Your task to perform on an android device: Add logitech g pro to the cart on ebay, then select checkout. Image 0: 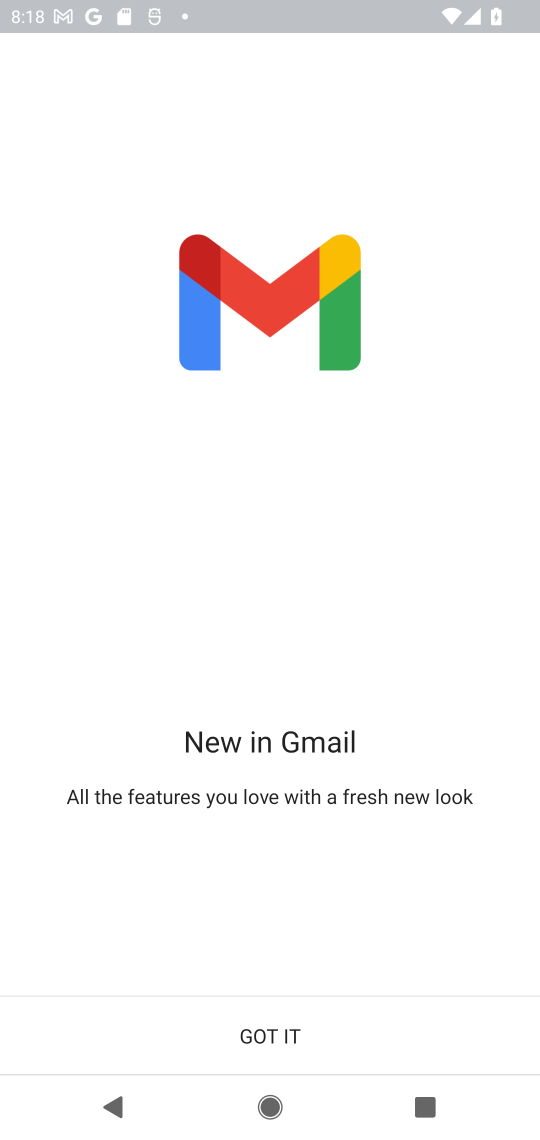
Step 0: press home button
Your task to perform on an android device: Add logitech g pro to the cart on ebay, then select checkout. Image 1: 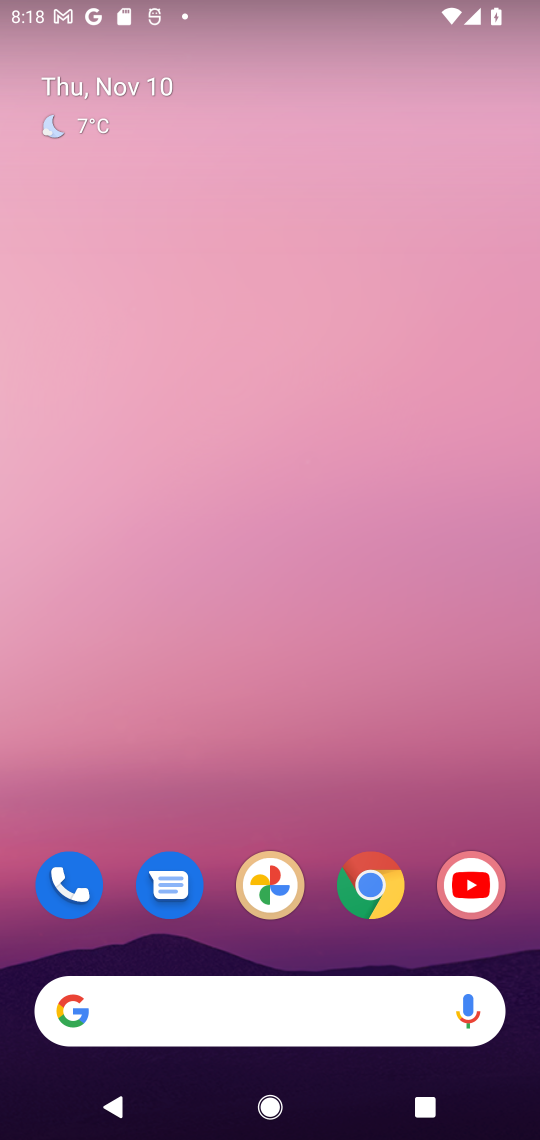
Step 1: click (365, 873)
Your task to perform on an android device: Add logitech g pro to the cart on ebay, then select checkout. Image 2: 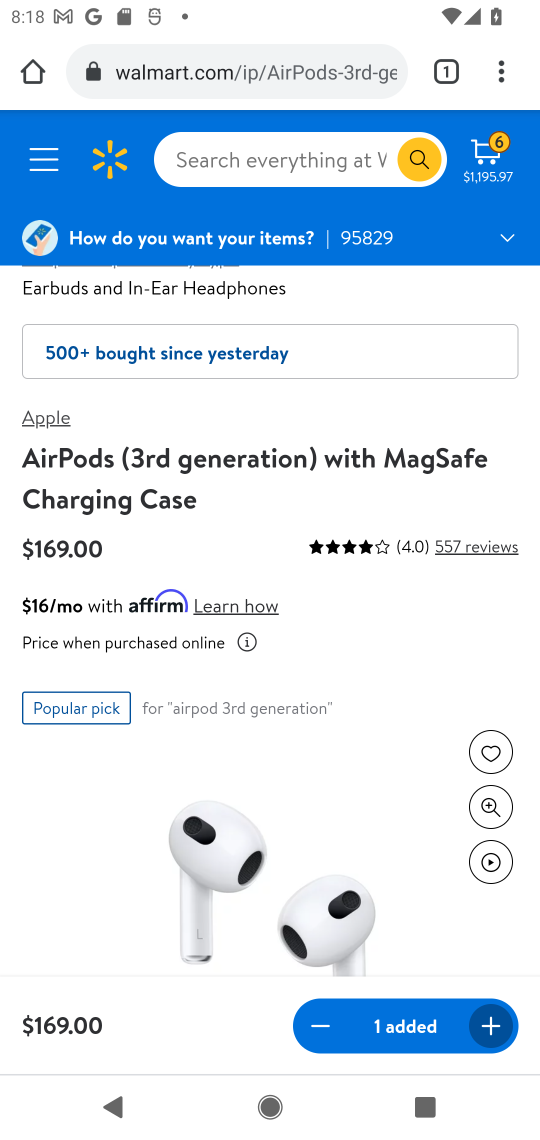
Step 2: click (297, 80)
Your task to perform on an android device: Add logitech g pro to the cart on ebay, then select checkout. Image 3: 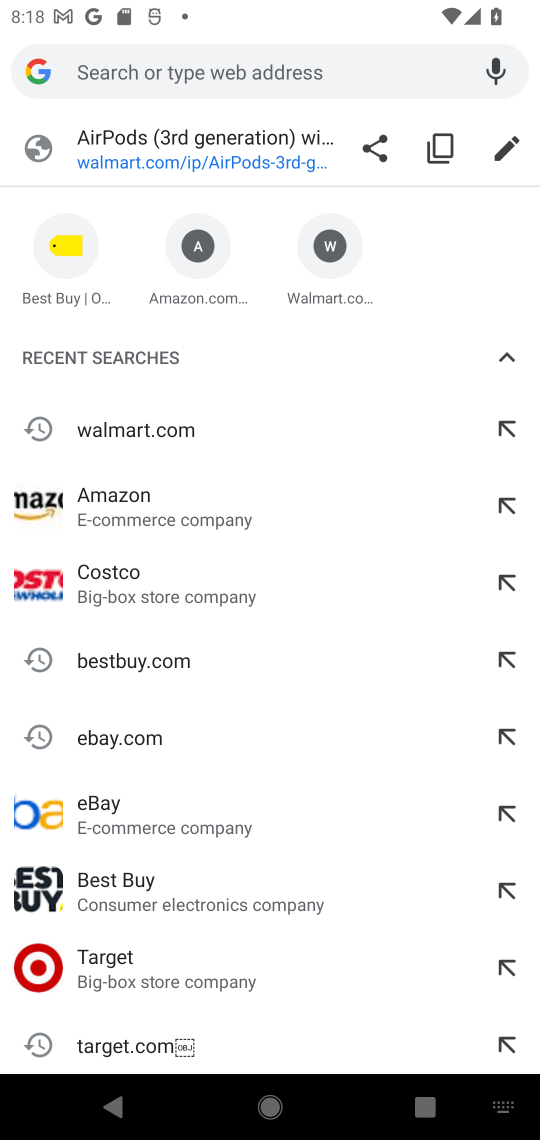
Step 3: click (148, 742)
Your task to perform on an android device: Add logitech g pro to the cart on ebay, then select checkout. Image 4: 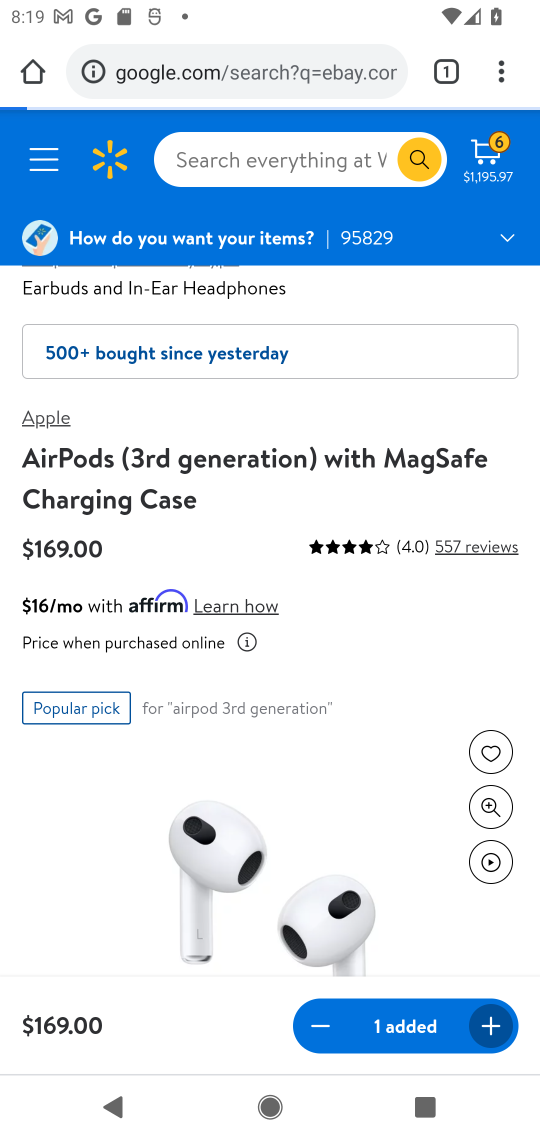
Step 4: click (312, 62)
Your task to perform on an android device: Add logitech g pro to the cart on ebay, then select checkout. Image 5: 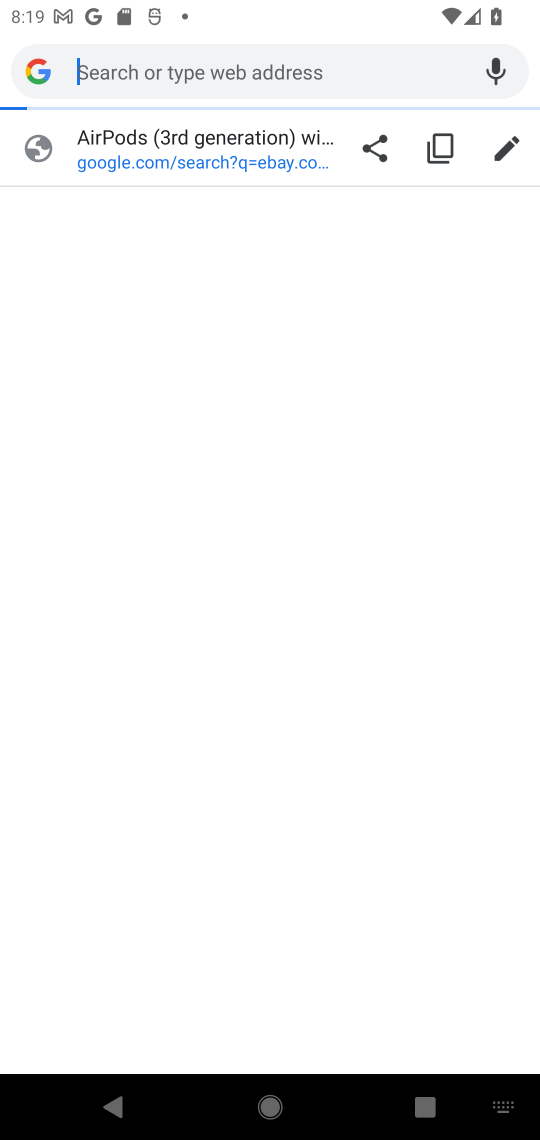
Step 5: type "ebay"
Your task to perform on an android device: Add logitech g pro to the cart on ebay, then select checkout. Image 6: 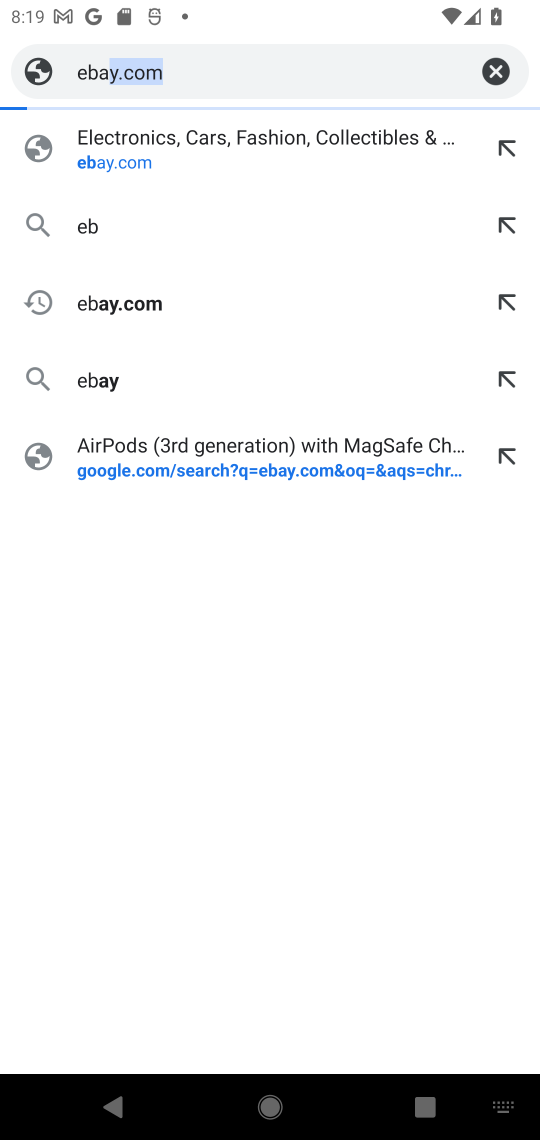
Step 6: press enter
Your task to perform on an android device: Add logitech g pro to the cart on ebay, then select checkout. Image 7: 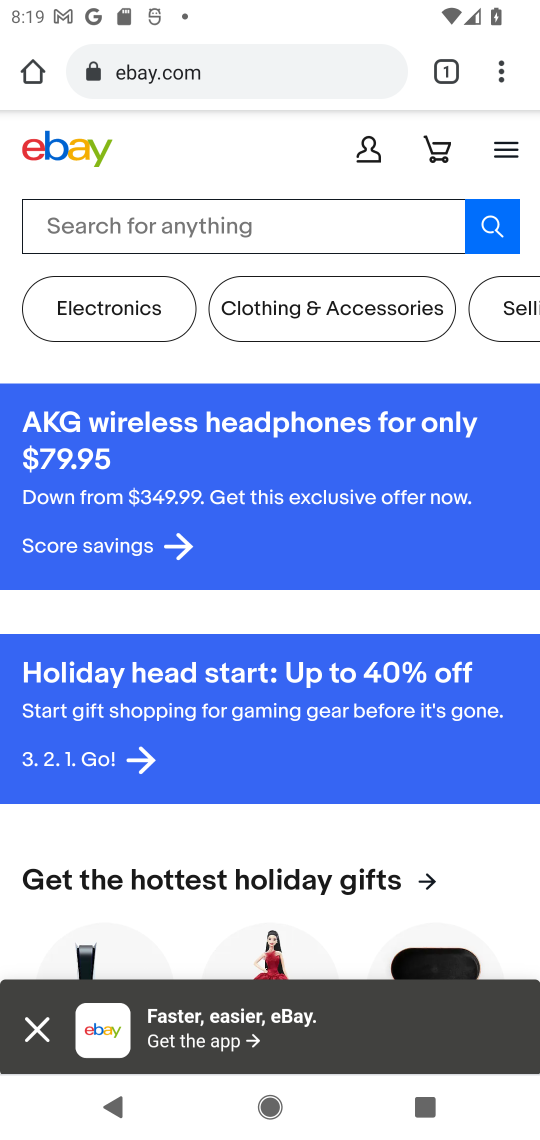
Step 7: click (178, 225)
Your task to perform on an android device: Add logitech g pro to the cart on ebay, then select checkout. Image 8: 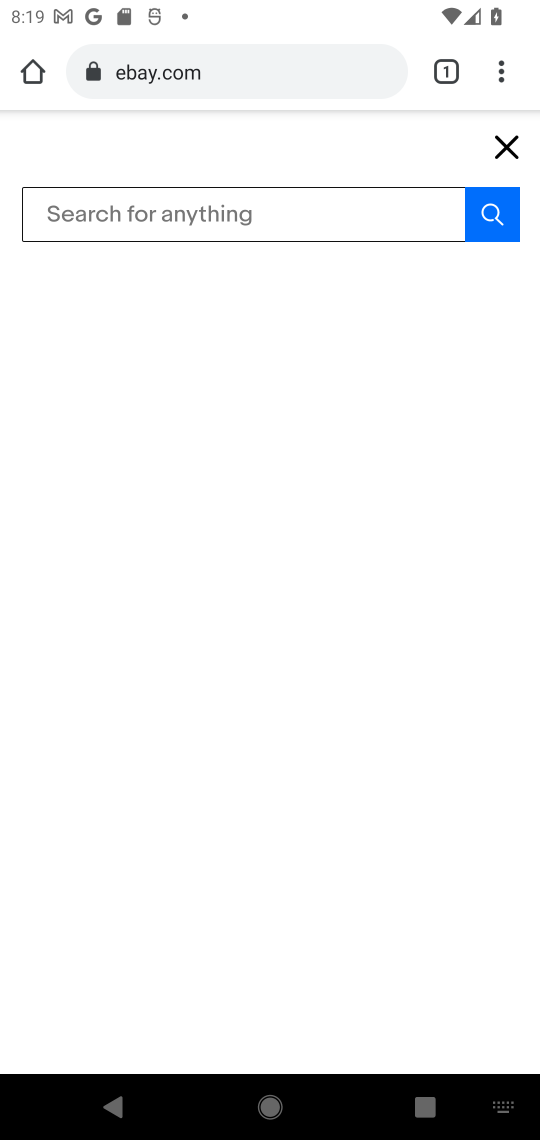
Step 8: type "logitech g pro"
Your task to perform on an android device: Add logitech g pro to the cart on ebay, then select checkout. Image 9: 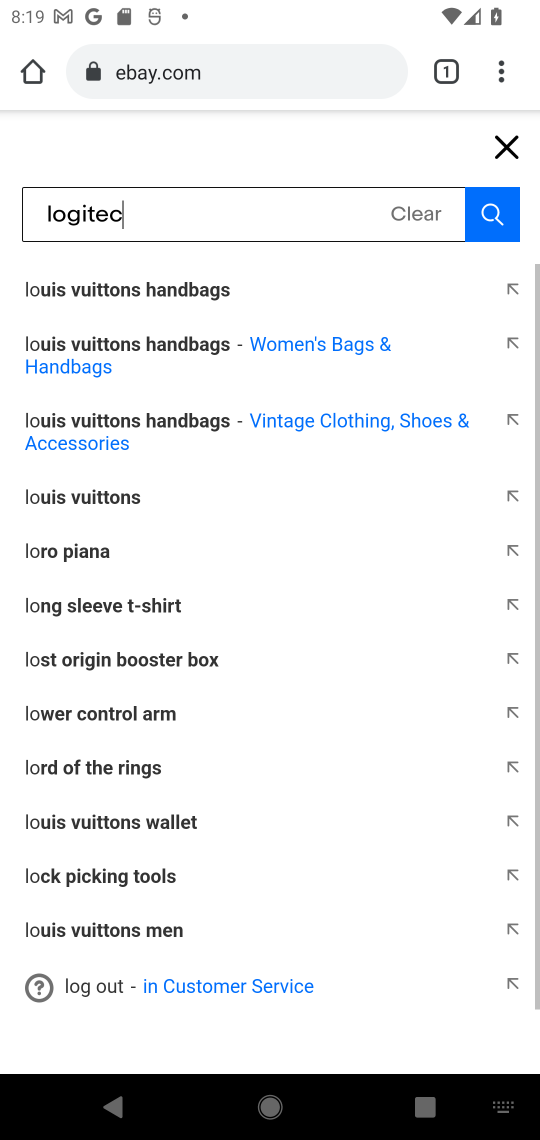
Step 9: press enter
Your task to perform on an android device: Add logitech g pro to the cart on ebay, then select checkout. Image 10: 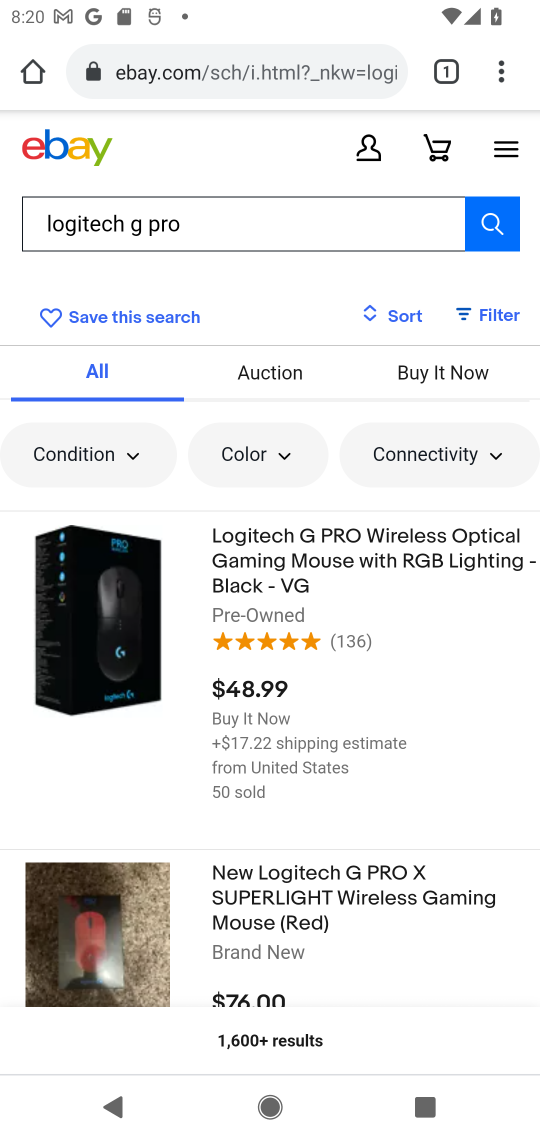
Step 10: click (69, 628)
Your task to perform on an android device: Add logitech g pro to the cart on ebay, then select checkout. Image 11: 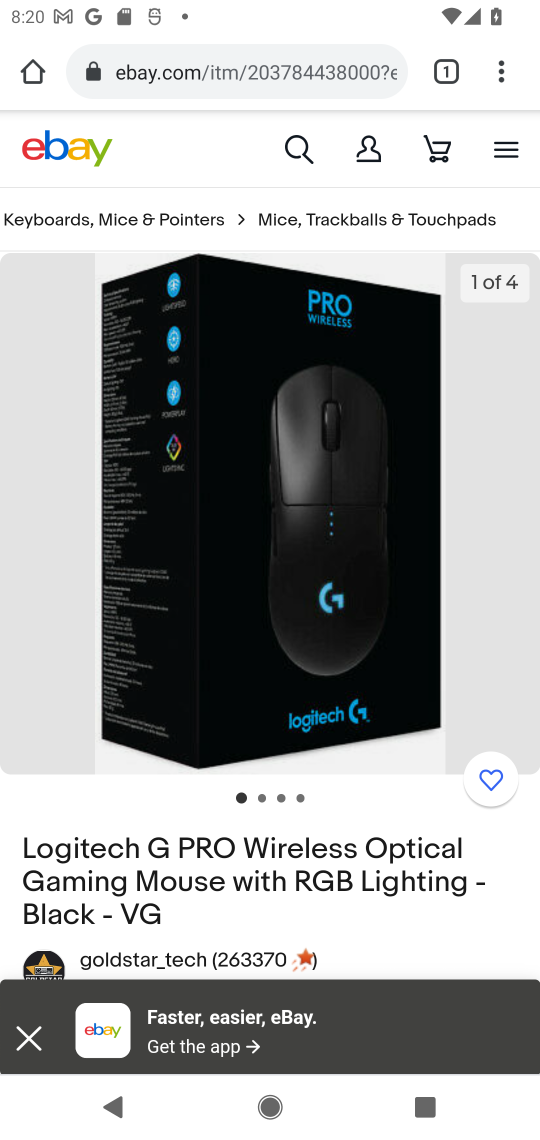
Step 11: drag from (280, 672) to (335, 298)
Your task to perform on an android device: Add logitech g pro to the cart on ebay, then select checkout. Image 12: 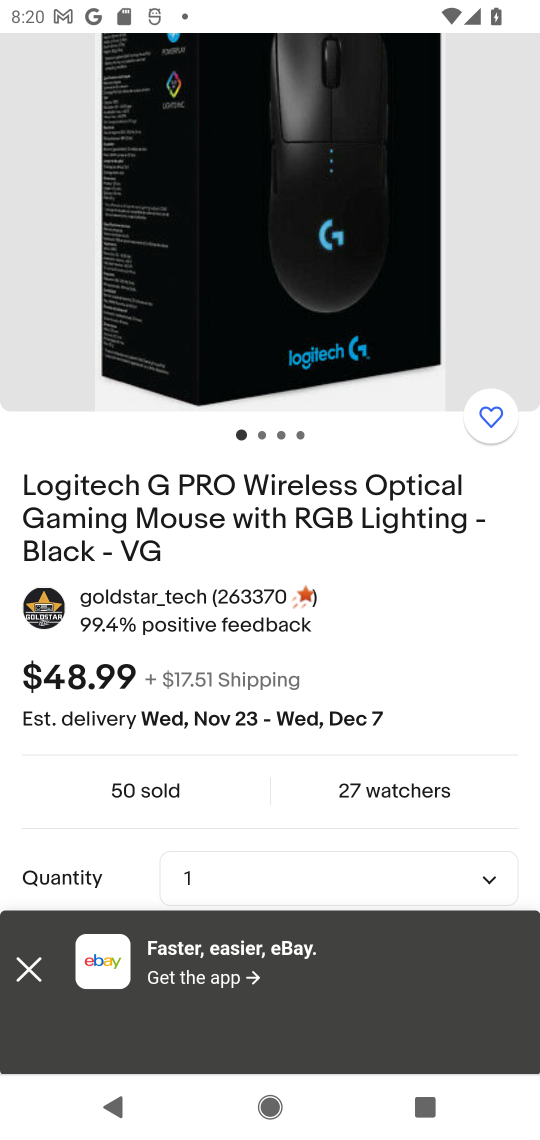
Step 12: drag from (422, 828) to (404, 382)
Your task to perform on an android device: Add logitech g pro to the cart on ebay, then select checkout. Image 13: 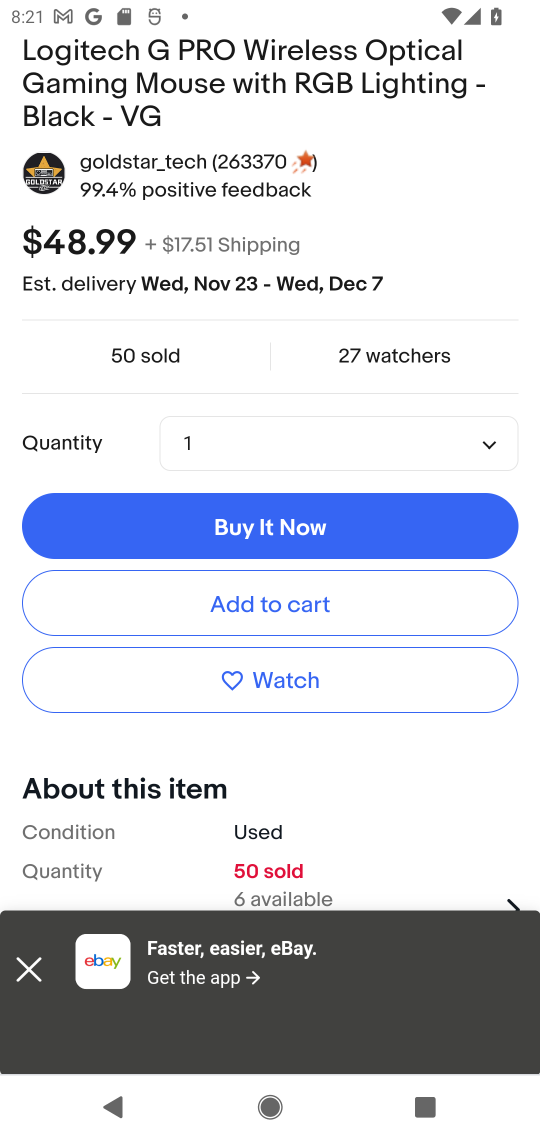
Step 13: click (290, 603)
Your task to perform on an android device: Add logitech g pro to the cart on ebay, then select checkout. Image 14: 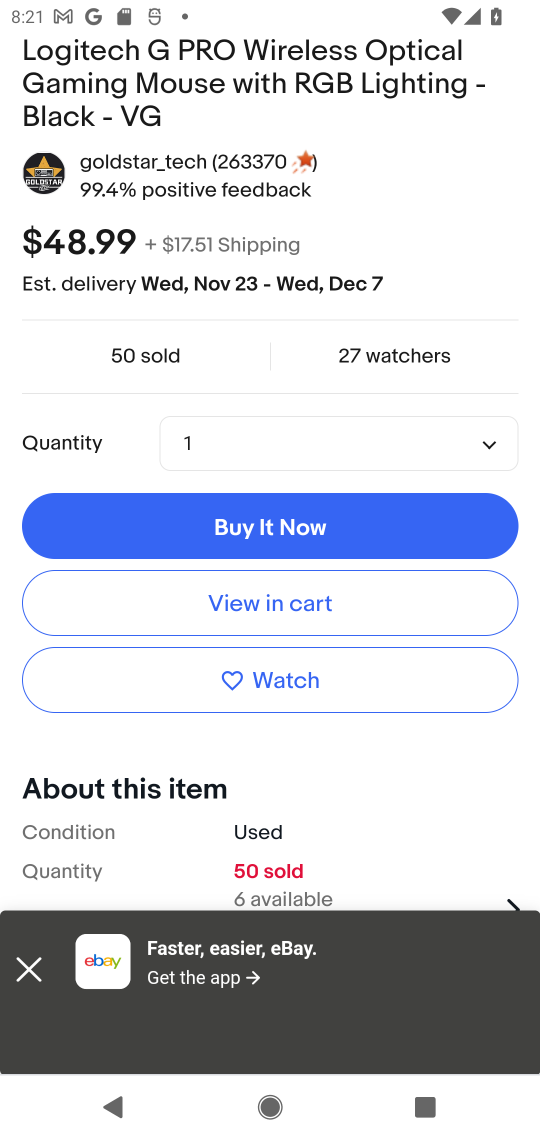
Step 14: click (287, 604)
Your task to perform on an android device: Add logitech g pro to the cart on ebay, then select checkout. Image 15: 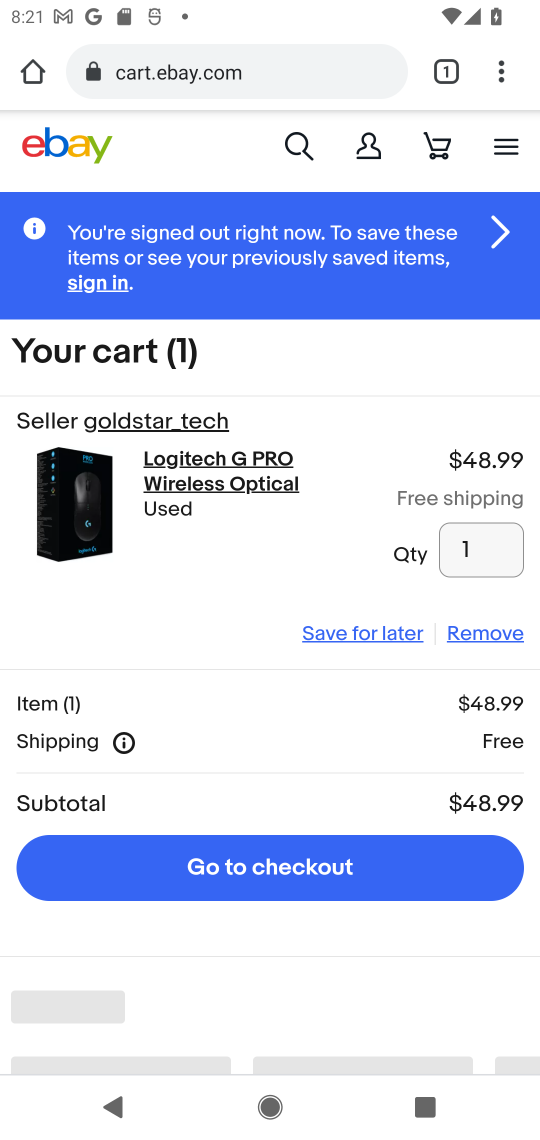
Step 15: click (309, 870)
Your task to perform on an android device: Add logitech g pro to the cart on ebay, then select checkout. Image 16: 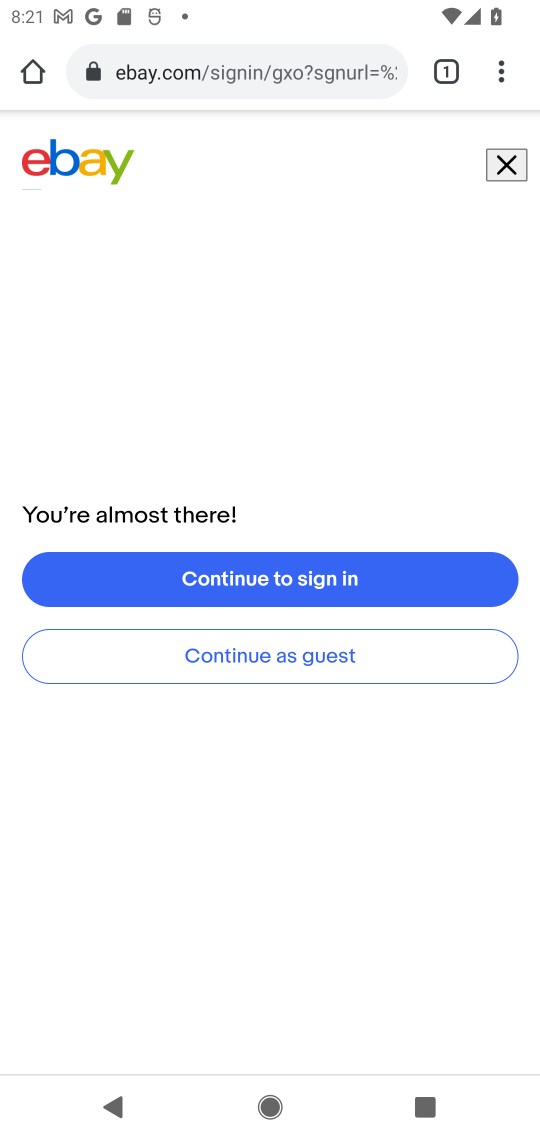
Step 16: task complete